Your task to perform on an android device: Turn on the flashlight Image 0: 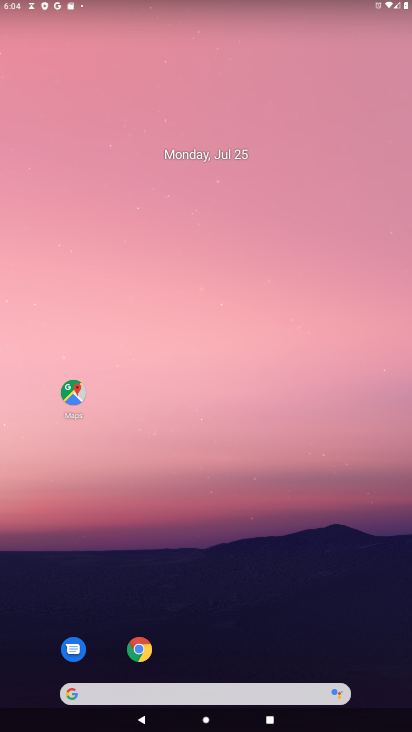
Step 0: drag from (244, 2) to (274, 641)
Your task to perform on an android device: Turn on the flashlight Image 1: 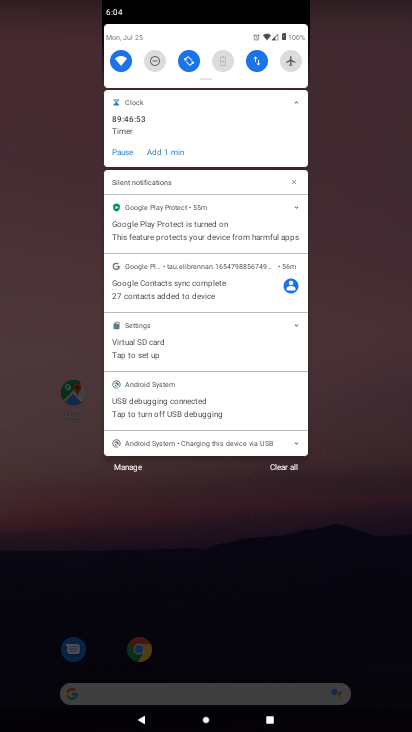
Step 1: task complete